Your task to perform on an android device: Open battery settings Image 0: 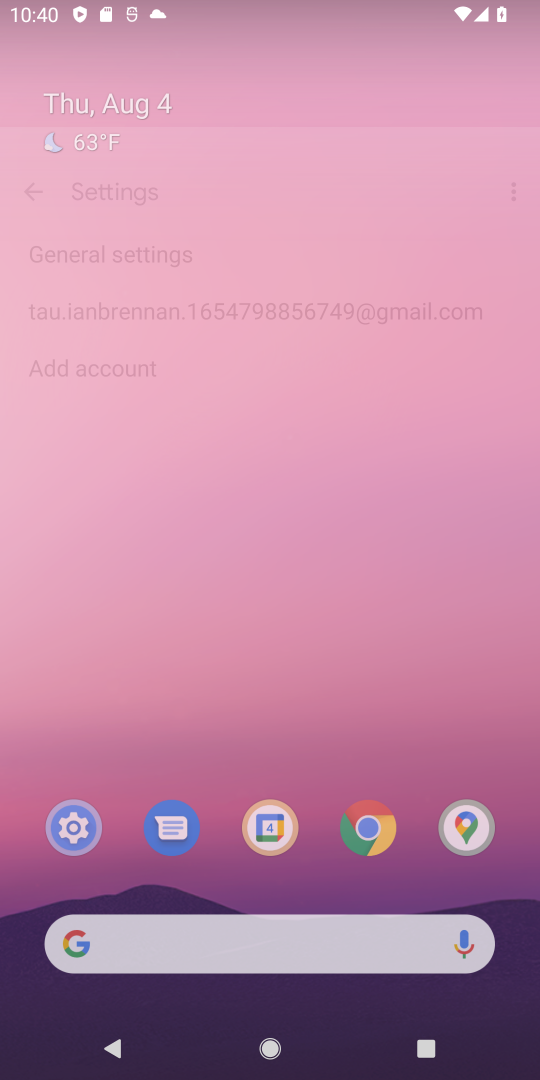
Step 0: press home button
Your task to perform on an android device: Open battery settings Image 1: 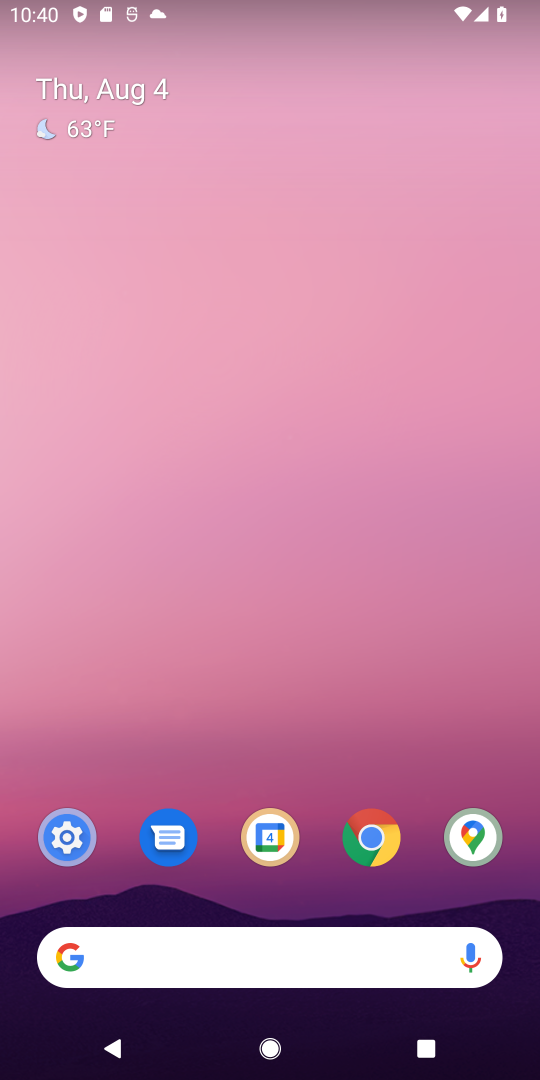
Step 1: drag from (319, 889) to (401, 0)
Your task to perform on an android device: Open battery settings Image 2: 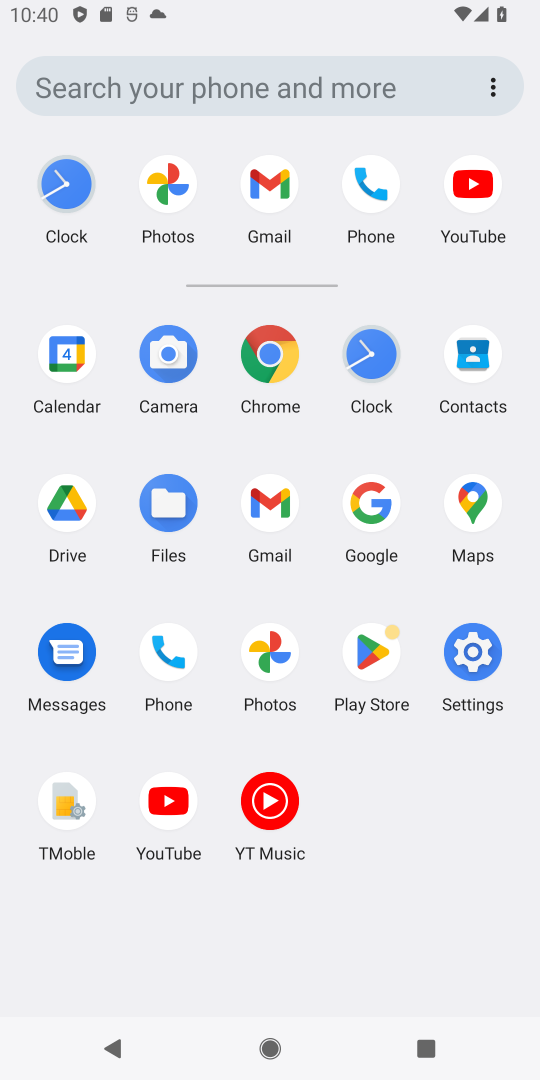
Step 2: click (471, 641)
Your task to perform on an android device: Open battery settings Image 3: 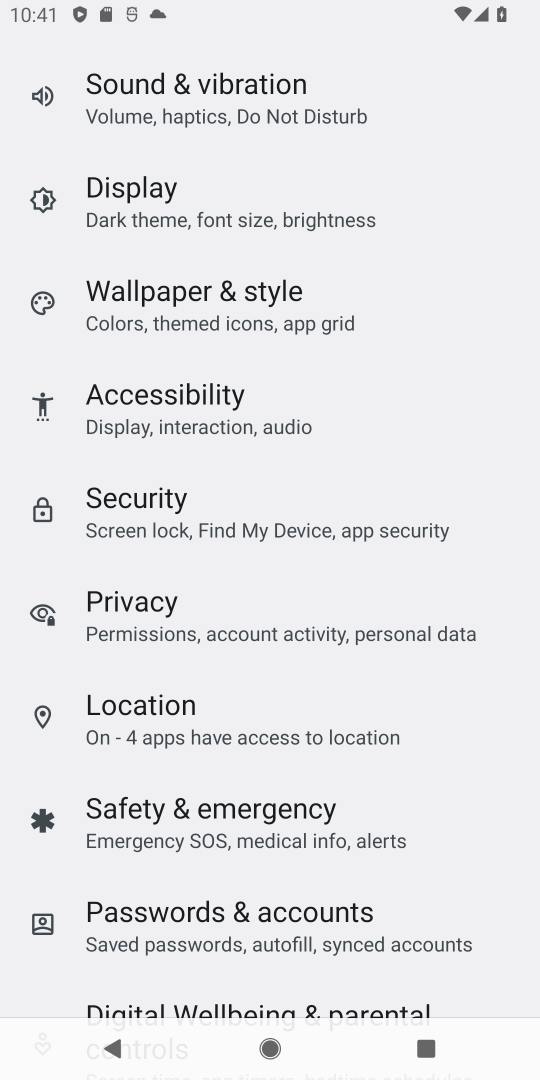
Step 3: drag from (238, 162) to (293, 858)
Your task to perform on an android device: Open battery settings Image 4: 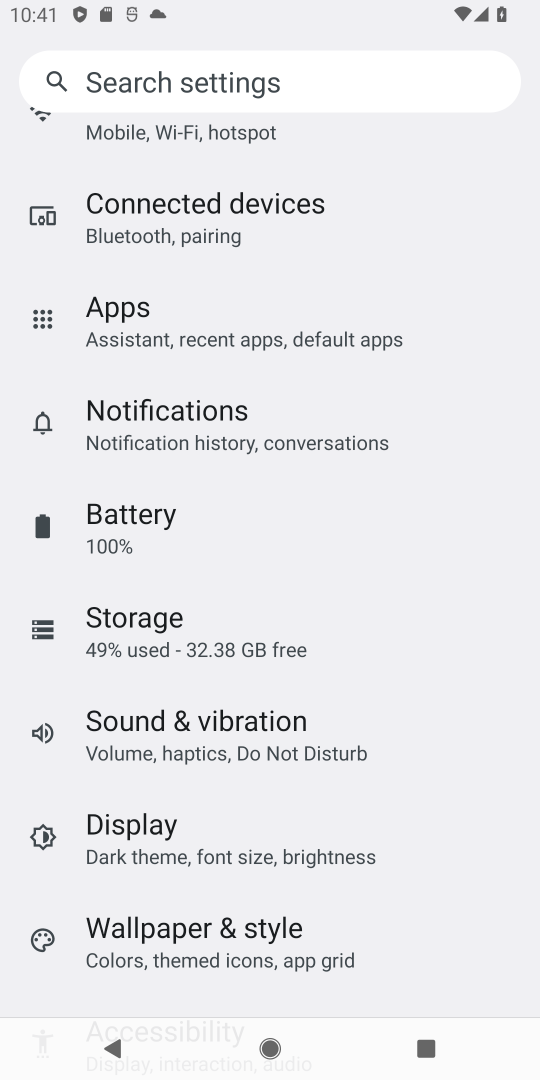
Step 4: click (198, 519)
Your task to perform on an android device: Open battery settings Image 5: 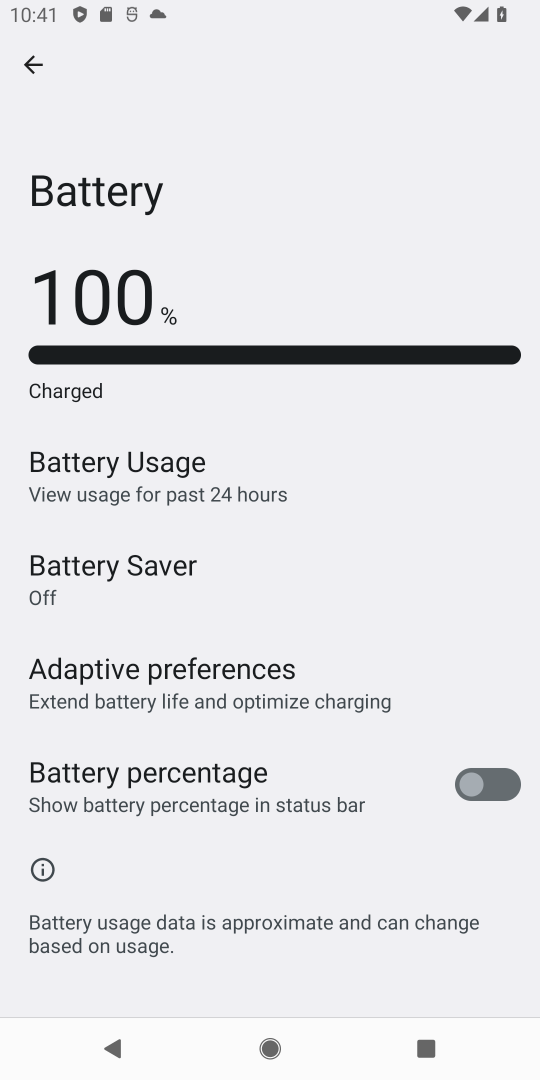
Step 5: task complete